Your task to perform on an android device: Go to privacy settings Image 0: 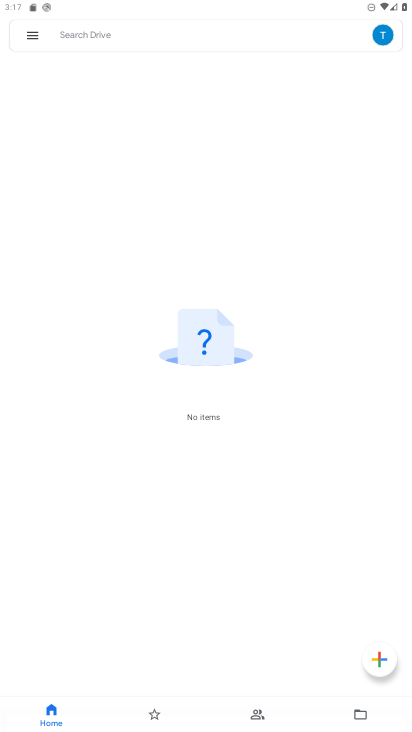
Step 0: press home button
Your task to perform on an android device: Go to privacy settings Image 1: 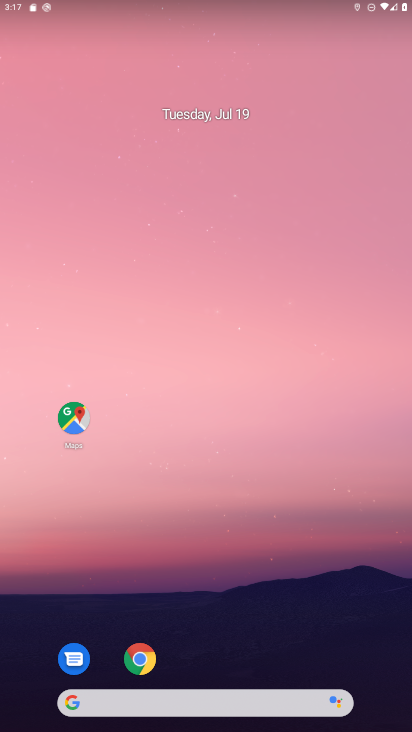
Step 1: drag from (274, 619) to (288, 92)
Your task to perform on an android device: Go to privacy settings Image 2: 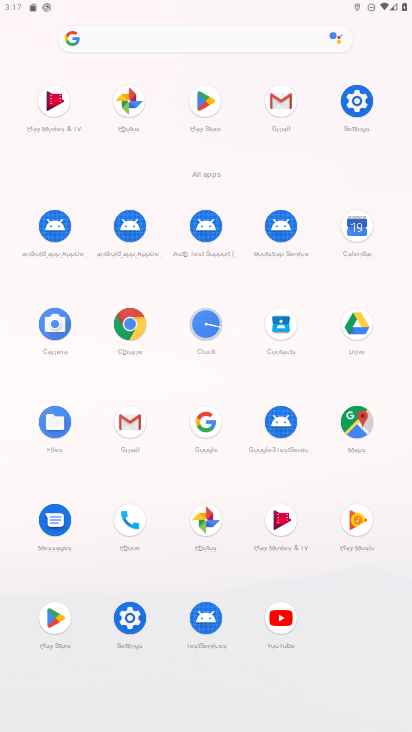
Step 2: click (355, 104)
Your task to perform on an android device: Go to privacy settings Image 3: 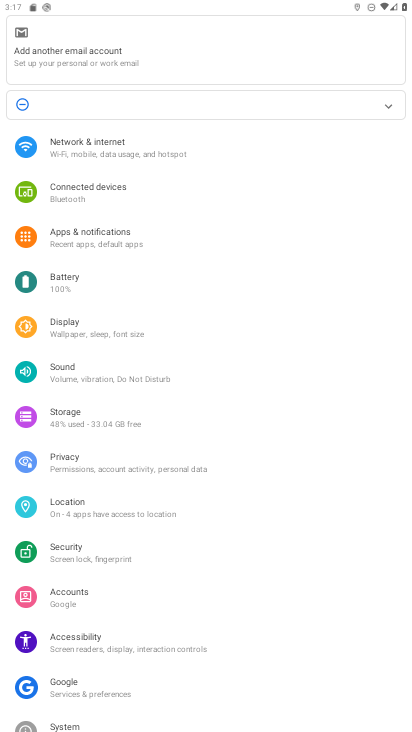
Step 3: click (91, 459)
Your task to perform on an android device: Go to privacy settings Image 4: 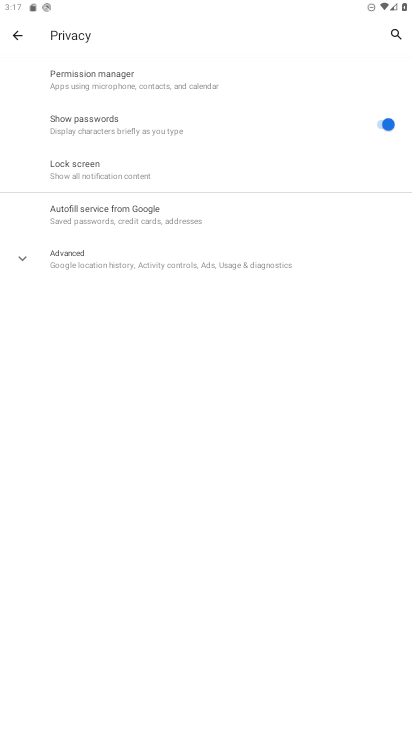
Step 4: task complete